Your task to perform on an android device: check out phone information Image 0: 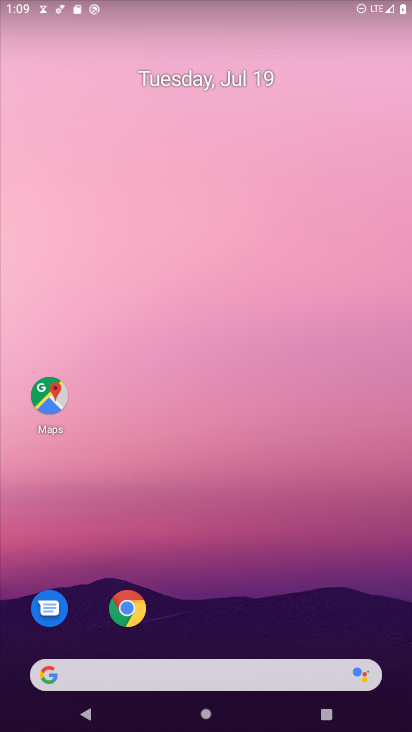
Step 0: drag from (289, 665) to (259, 0)
Your task to perform on an android device: check out phone information Image 1: 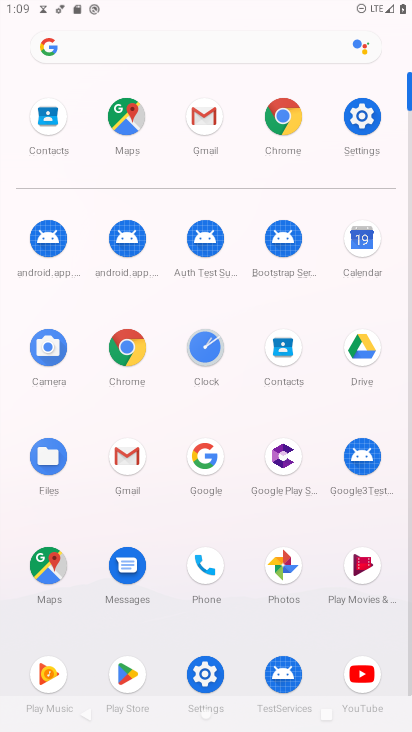
Step 1: click (366, 125)
Your task to perform on an android device: check out phone information Image 2: 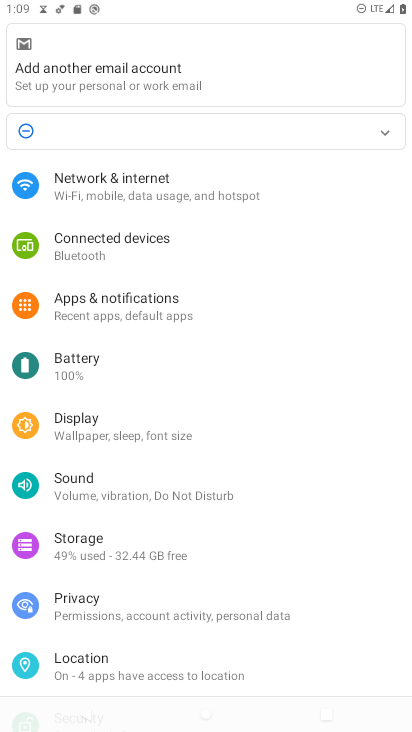
Step 2: drag from (201, 672) to (215, 14)
Your task to perform on an android device: check out phone information Image 3: 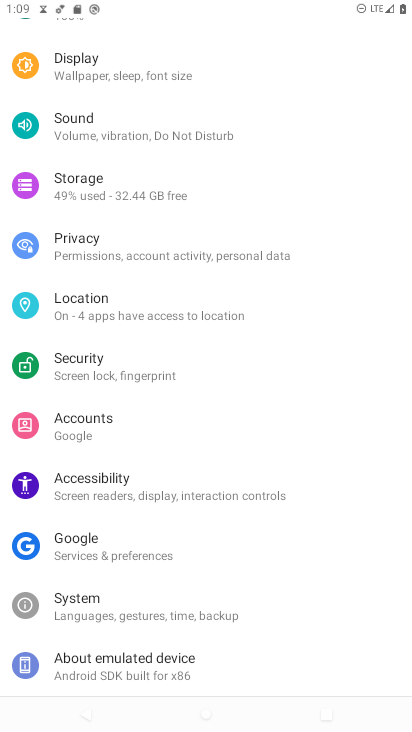
Step 3: click (150, 663)
Your task to perform on an android device: check out phone information Image 4: 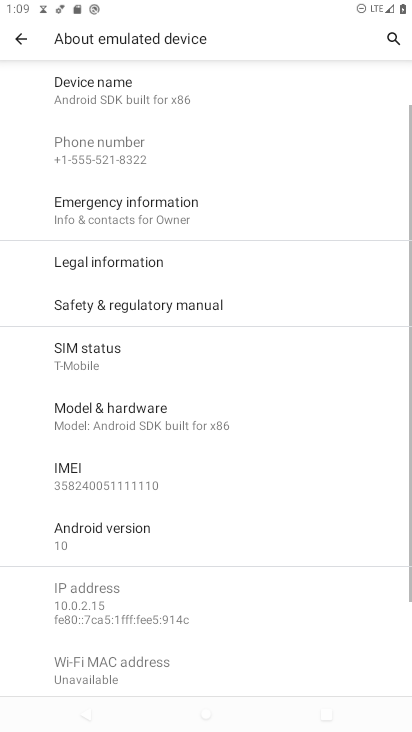
Step 4: task complete